Your task to perform on an android device: What does the iPhone 8 look like? Image 0: 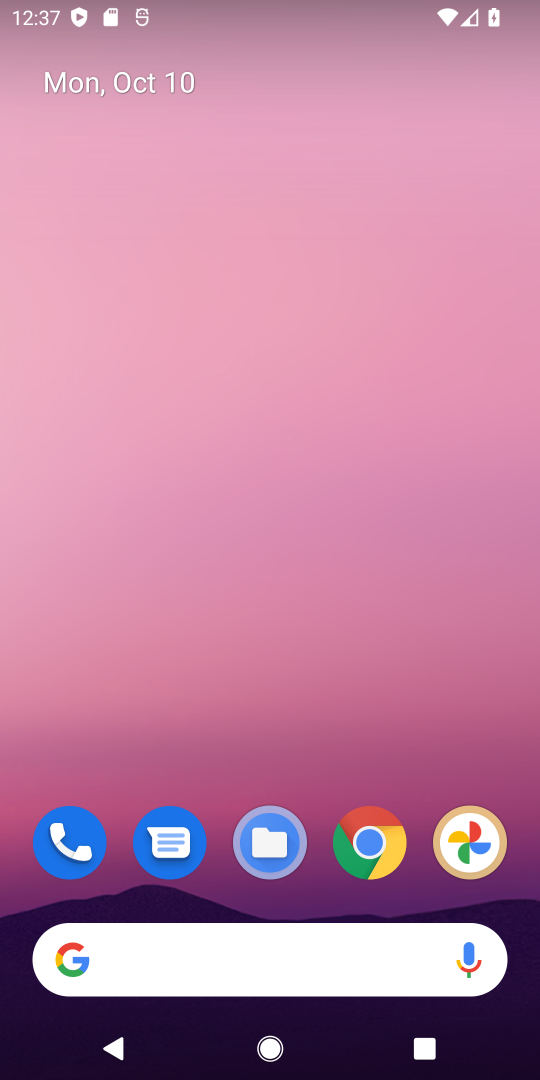
Step 0: click (369, 853)
Your task to perform on an android device: What does the iPhone 8 look like? Image 1: 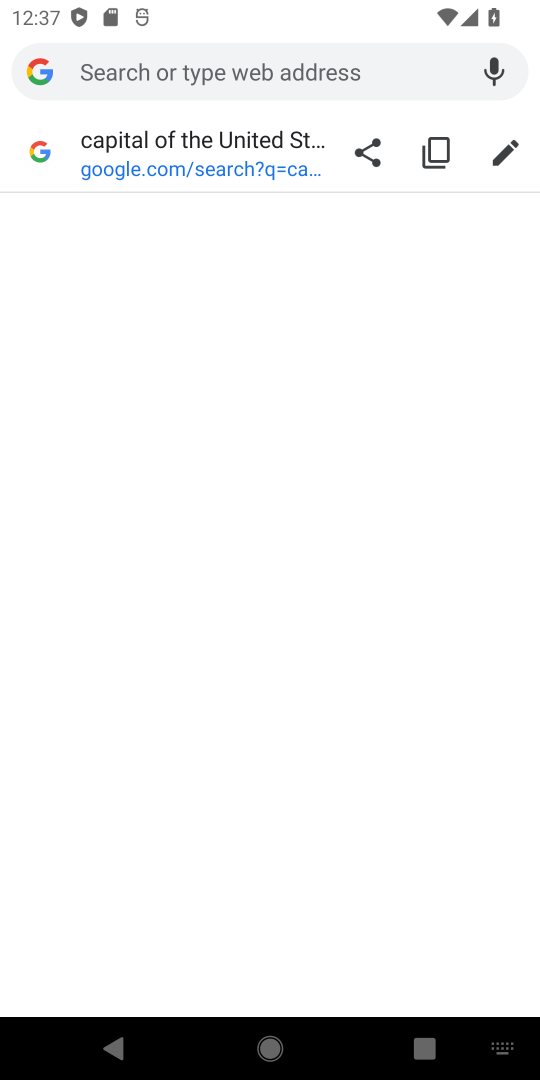
Step 1: type "what does Iphone 8 look like?"
Your task to perform on an android device: What does the iPhone 8 look like? Image 2: 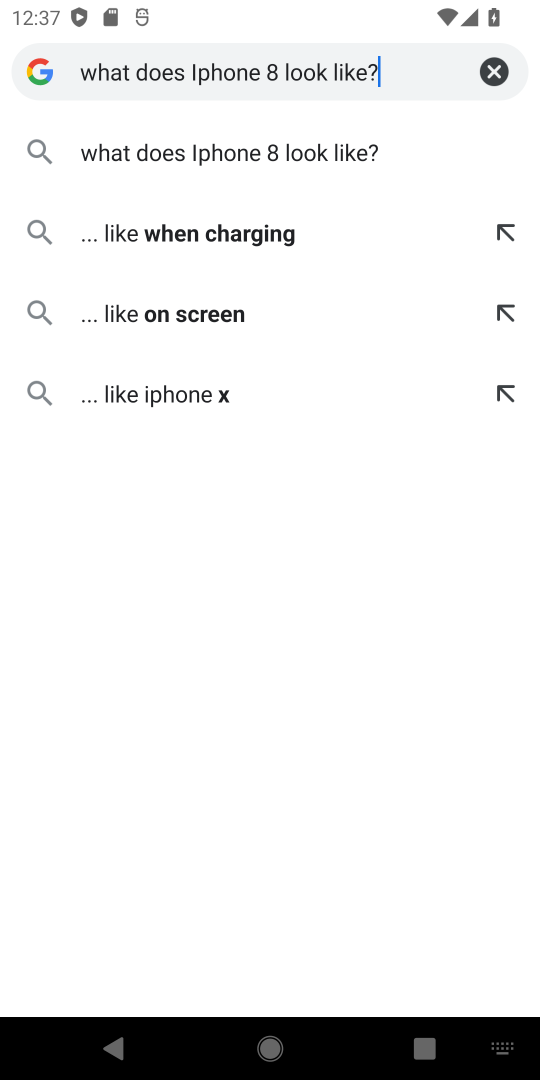
Step 2: press enter
Your task to perform on an android device: What does the iPhone 8 look like? Image 3: 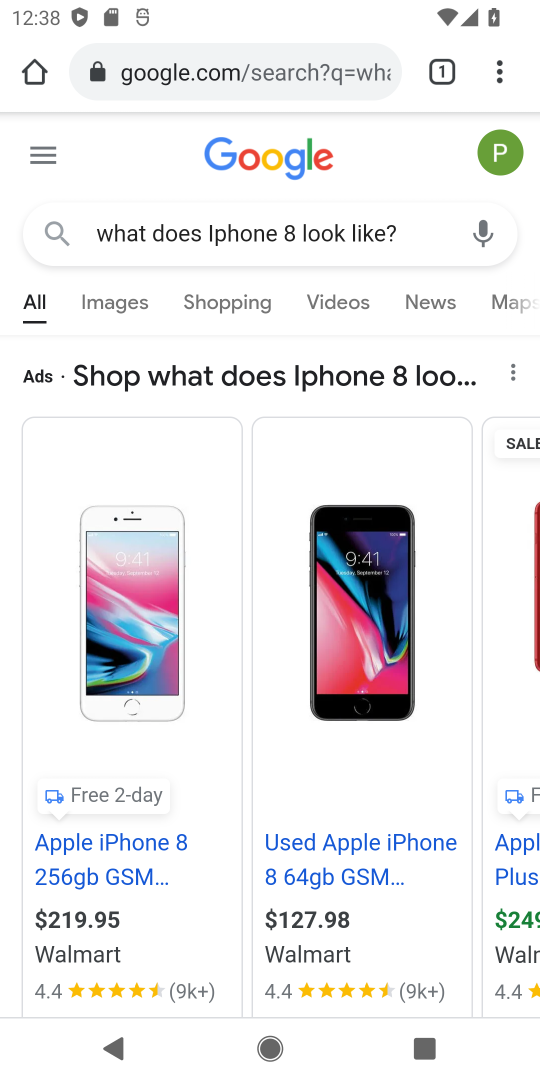
Step 3: task complete